Your task to perform on an android device: Go to sound settings Image 0: 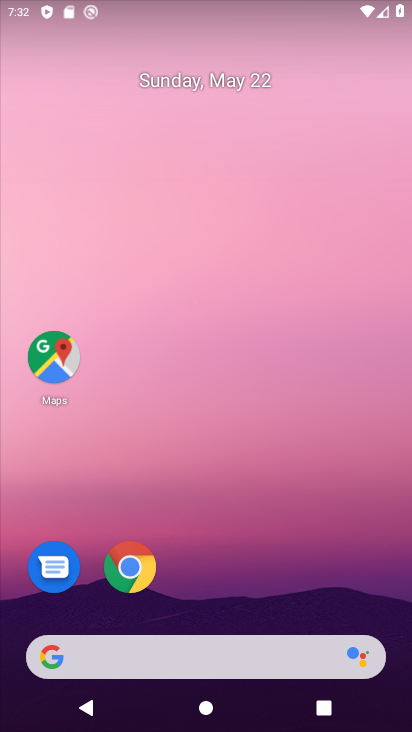
Step 0: drag from (193, 617) to (271, 135)
Your task to perform on an android device: Go to sound settings Image 1: 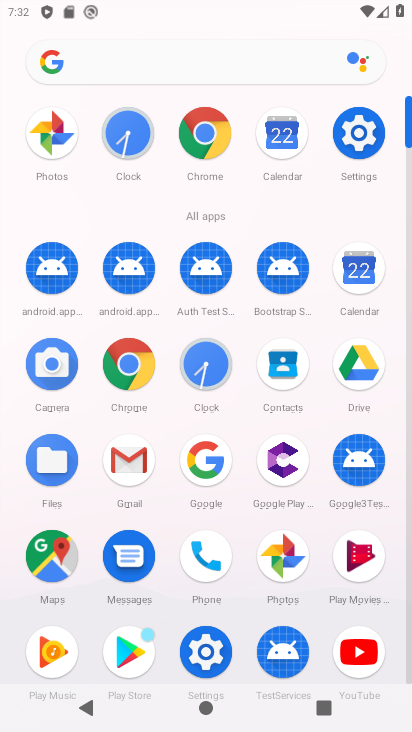
Step 1: click (350, 120)
Your task to perform on an android device: Go to sound settings Image 2: 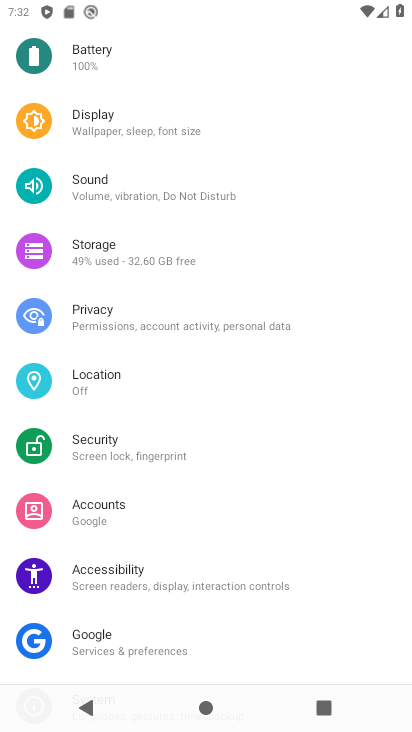
Step 2: click (115, 181)
Your task to perform on an android device: Go to sound settings Image 3: 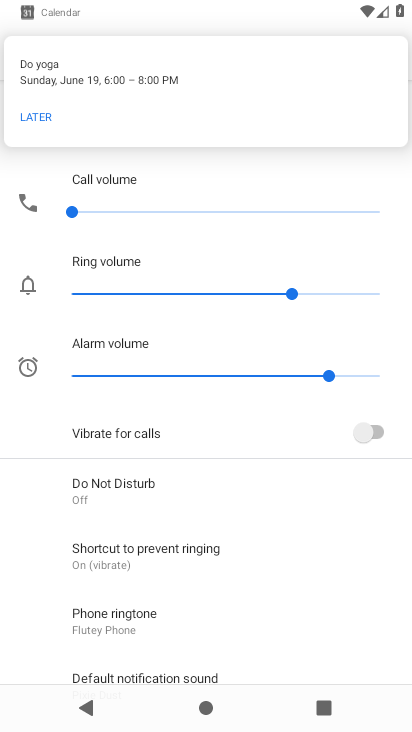
Step 3: task complete